Your task to perform on an android device: delete the emails in spam in the gmail app Image 0: 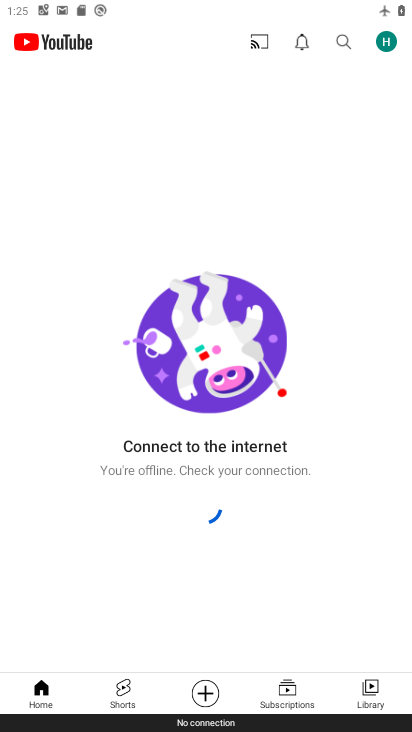
Step 0: press home button
Your task to perform on an android device: delete the emails in spam in the gmail app Image 1: 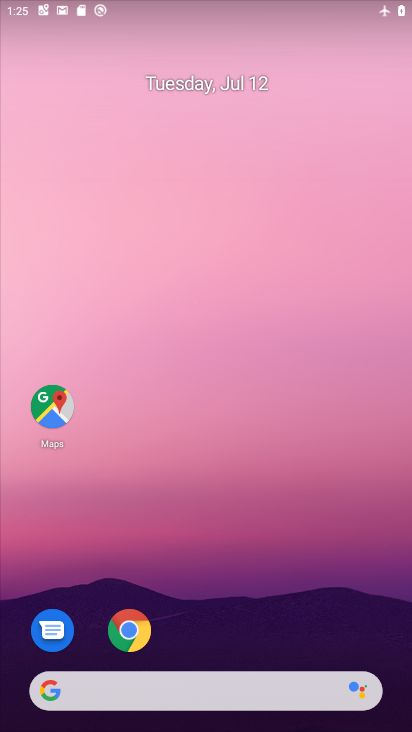
Step 1: drag from (204, 623) to (243, 29)
Your task to perform on an android device: delete the emails in spam in the gmail app Image 2: 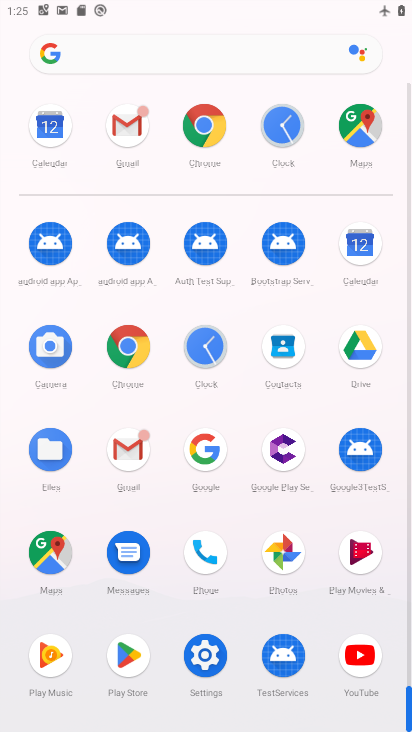
Step 2: click (124, 450)
Your task to perform on an android device: delete the emails in spam in the gmail app Image 3: 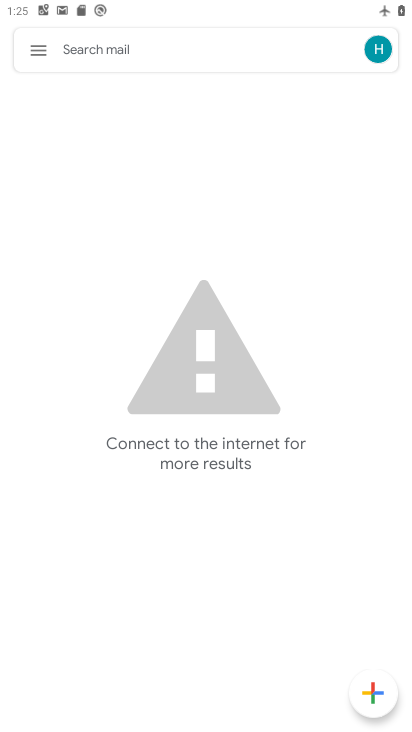
Step 3: click (38, 52)
Your task to perform on an android device: delete the emails in spam in the gmail app Image 4: 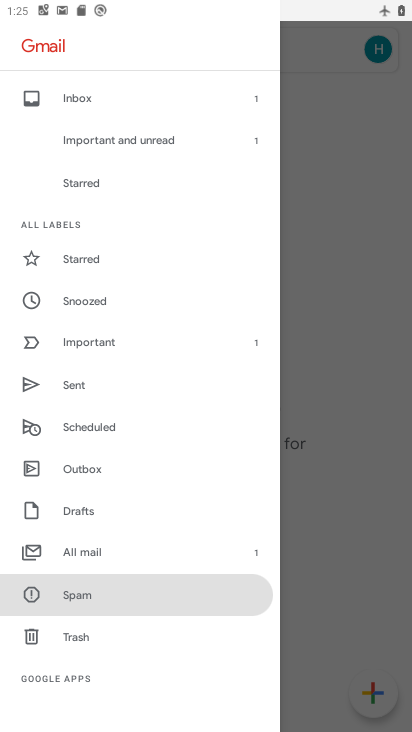
Step 4: click (102, 598)
Your task to perform on an android device: delete the emails in spam in the gmail app Image 5: 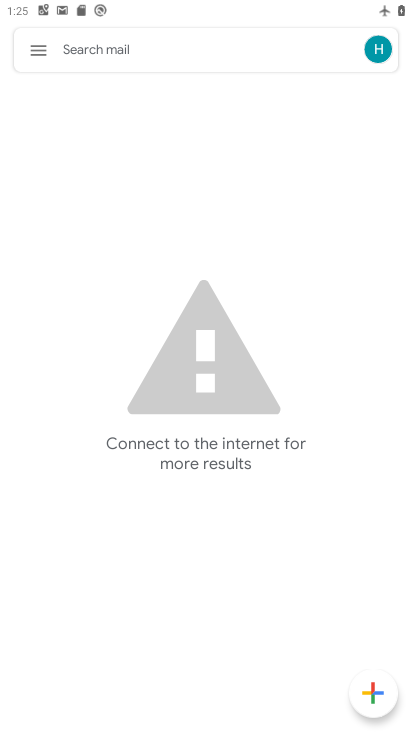
Step 5: task complete